Your task to perform on an android device: turn on airplane mode Image 0: 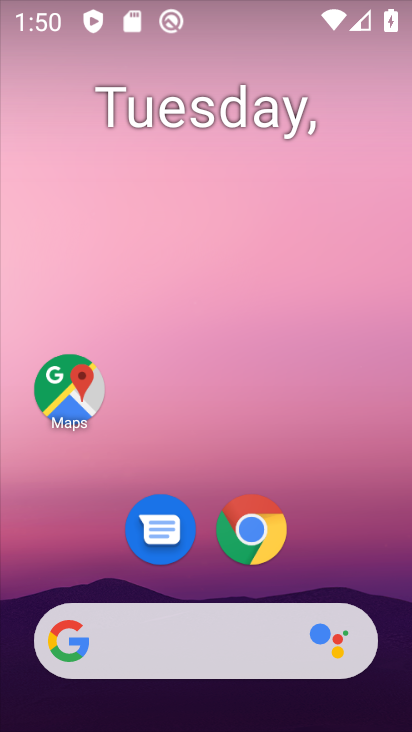
Step 0: drag from (206, 568) to (214, 92)
Your task to perform on an android device: turn on airplane mode Image 1: 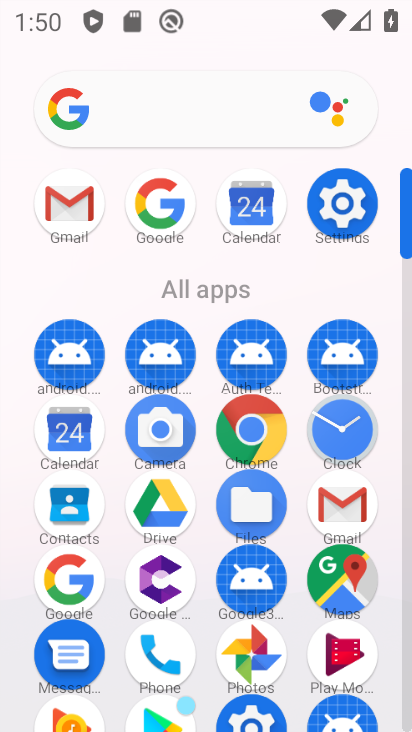
Step 1: click (346, 198)
Your task to perform on an android device: turn on airplane mode Image 2: 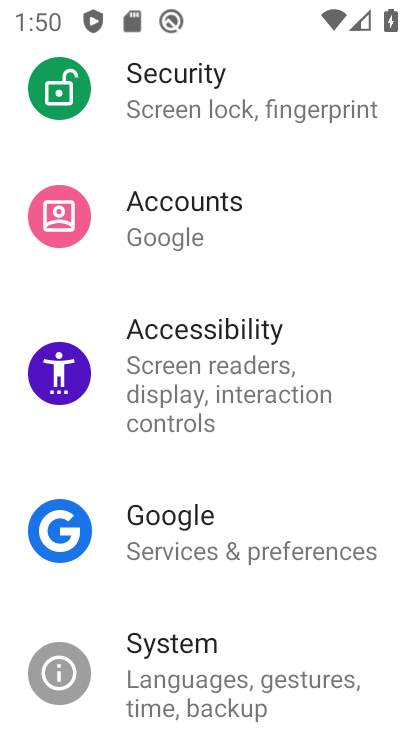
Step 2: drag from (250, 262) to (278, 648)
Your task to perform on an android device: turn on airplane mode Image 3: 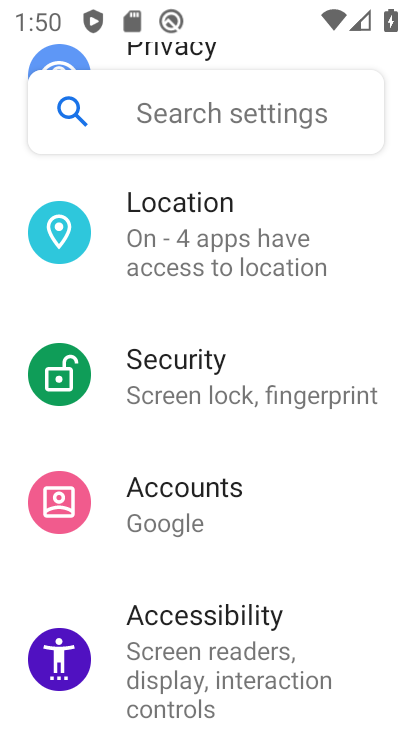
Step 3: drag from (242, 186) to (350, 652)
Your task to perform on an android device: turn on airplane mode Image 4: 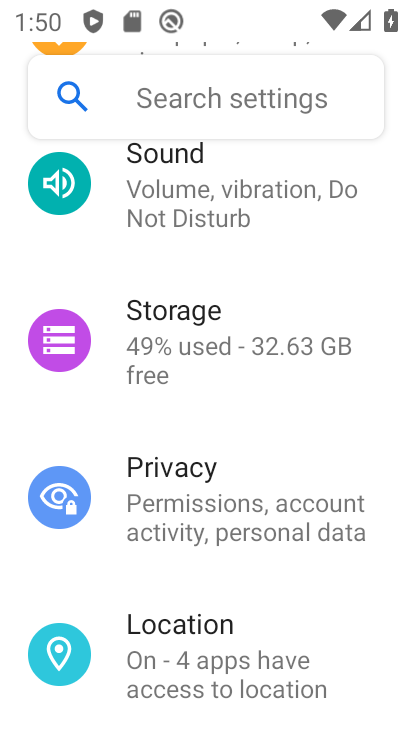
Step 4: drag from (179, 274) to (215, 731)
Your task to perform on an android device: turn on airplane mode Image 5: 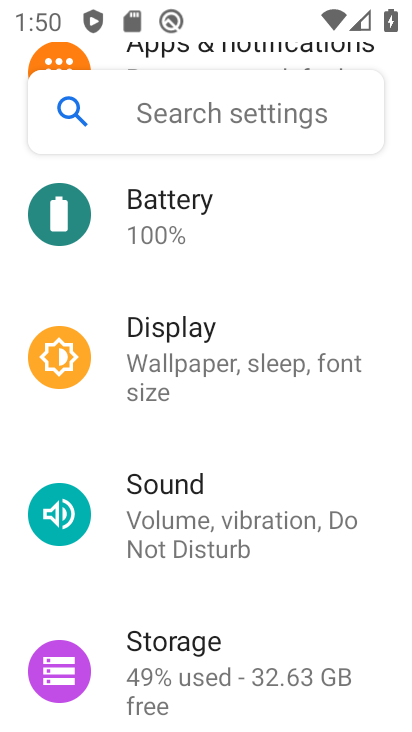
Step 5: drag from (172, 224) to (251, 667)
Your task to perform on an android device: turn on airplane mode Image 6: 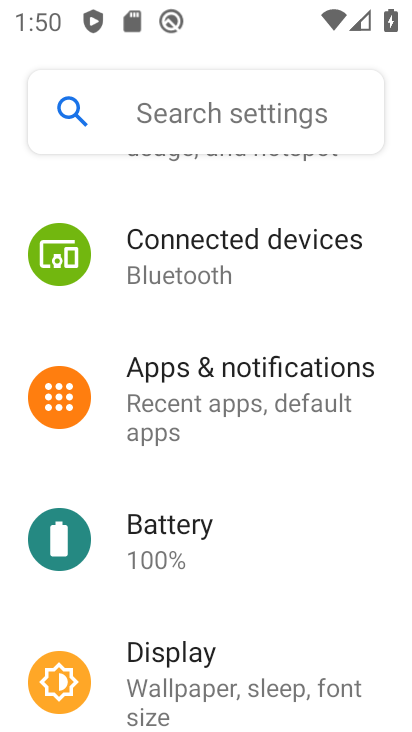
Step 6: drag from (181, 245) to (291, 546)
Your task to perform on an android device: turn on airplane mode Image 7: 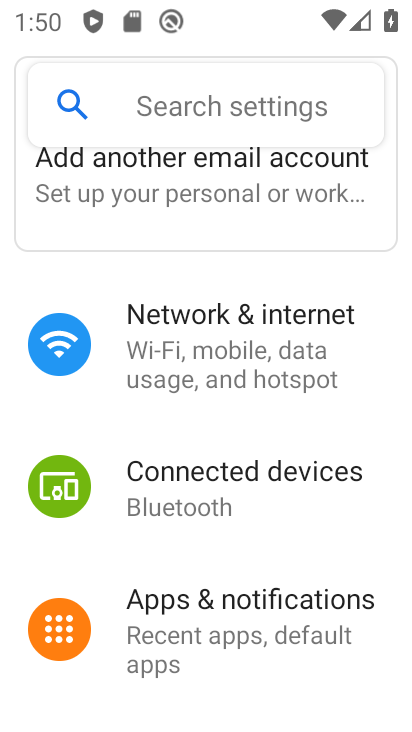
Step 7: drag from (228, 491) to (214, 238)
Your task to perform on an android device: turn on airplane mode Image 8: 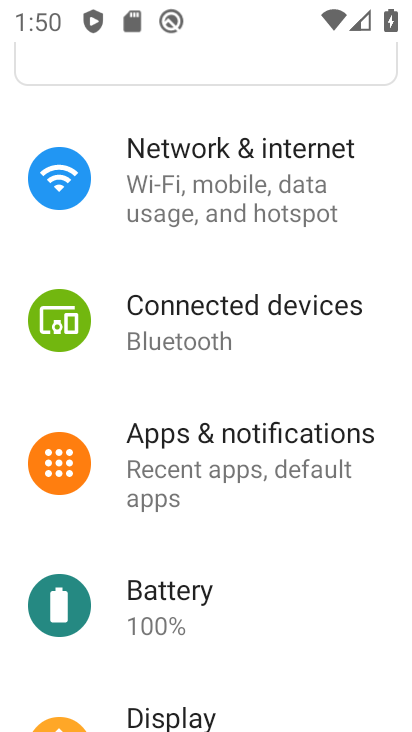
Step 8: click (201, 192)
Your task to perform on an android device: turn on airplane mode Image 9: 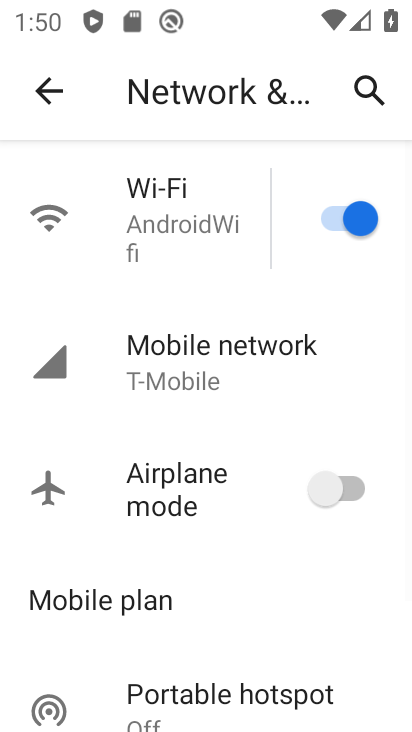
Step 9: click (335, 490)
Your task to perform on an android device: turn on airplane mode Image 10: 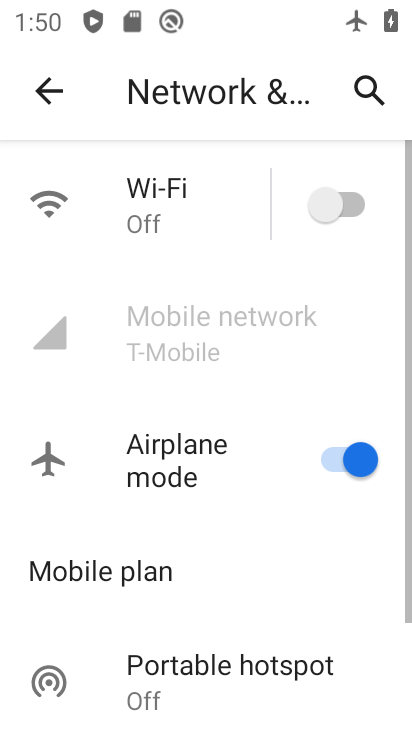
Step 10: task complete